Your task to perform on an android device: turn on wifi Image 0: 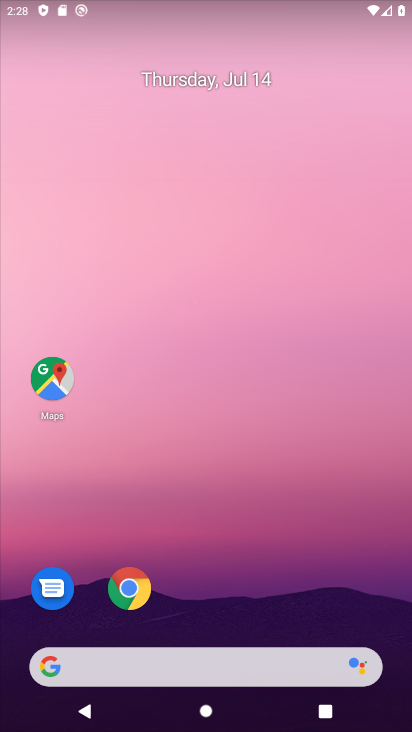
Step 0: drag from (245, 680) to (245, 32)
Your task to perform on an android device: turn on wifi Image 1: 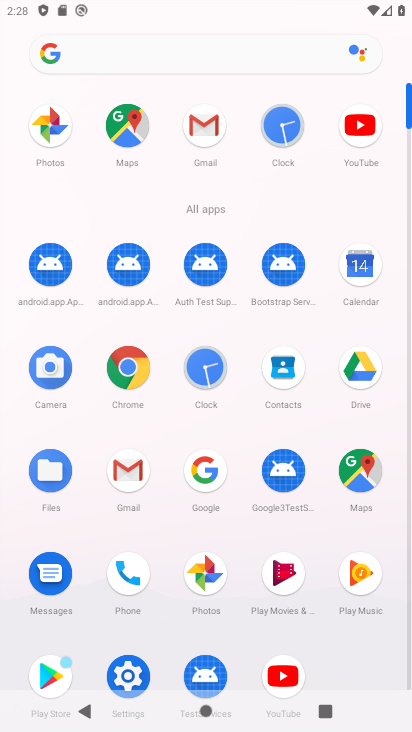
Step 1: click (136, 659)
Your task to perform on an android device: turn on wifi Image 2: 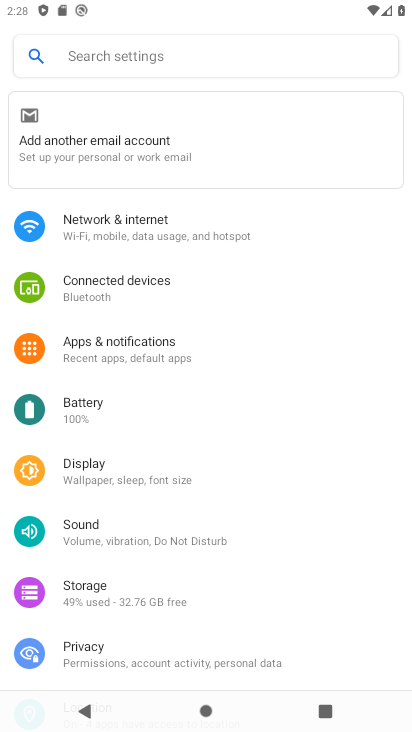
Step 2: click (70, 227)
Your task to perform on an android device: turn on wifi Image 3: 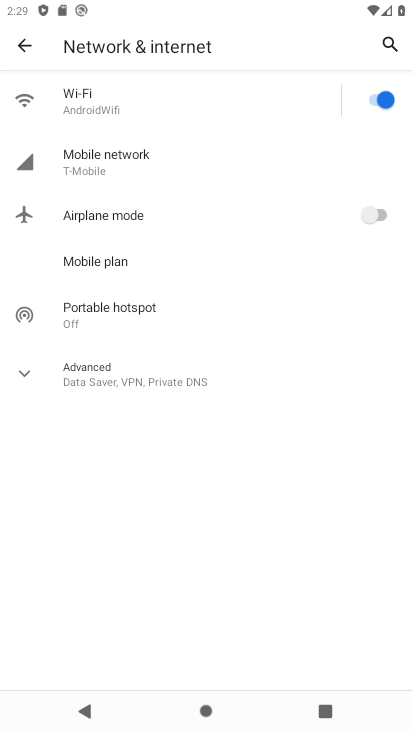
Step 3: task complete